Your task to perform on an android device: turn on notifications settings in the gmail app Image 0: 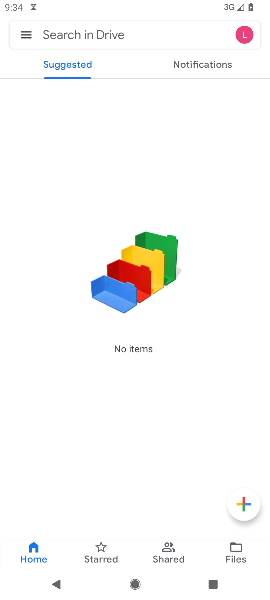
Step 0: press home button
Your task to perform on an android device: turn on notifications settings in the gmail app Image 1: 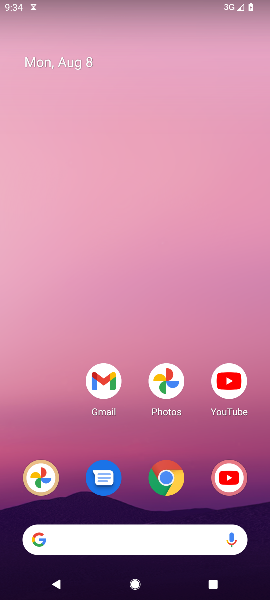
Step 1: click (109, 379)
Your task to perform on an android device: turn on notifications settings in the gmail app Image 2: 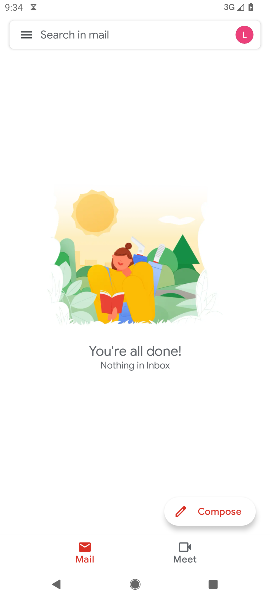
Step 2: click (29, 32)
Your task to perform on an android device: turn on notifications settings in the gmail app Image 3: 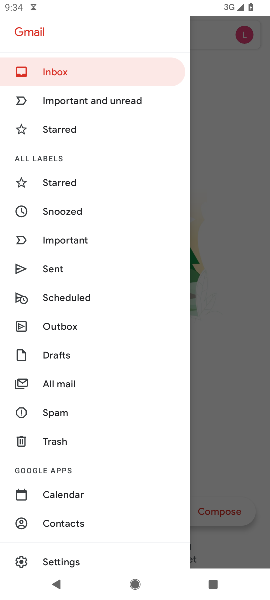
Step 3: click (63, 560)
Your task to perform on an android device: turn on notifications settings in the gmail app Image 4: 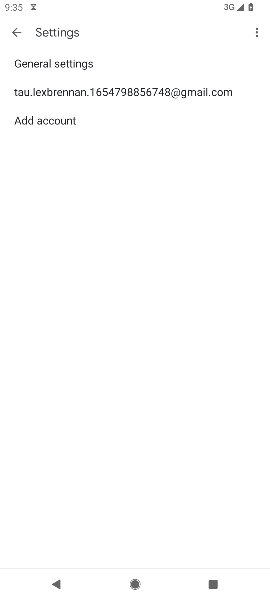
Step 4: click (170, 85)
Your task to perform on an android device: turn on notifications settings in the gmail app Image 5: 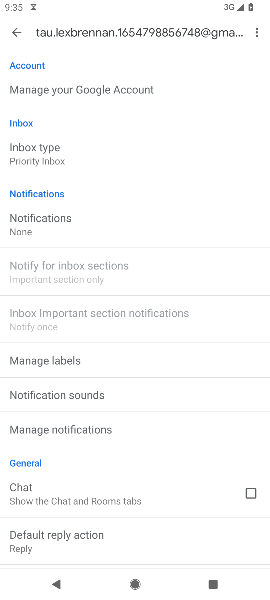
Step 5: click (40, 228)
Your task to perform on an android device: turn on notifications settings in the gmail app Image 6: 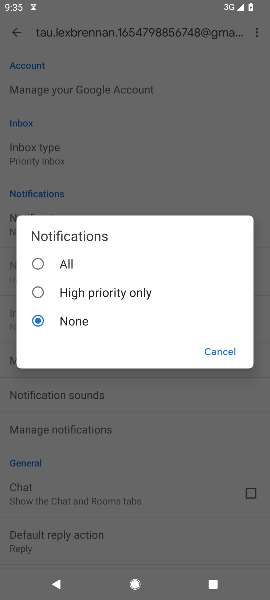
Step 6: click (36, 262)
Your task to perform on an android device: turn on notifications settings in the gmail app Image 7: 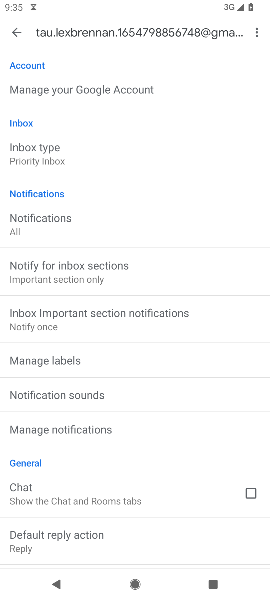
Step 7: task complete